Your task to perform on an android device: Open the stopwatch Image 0: 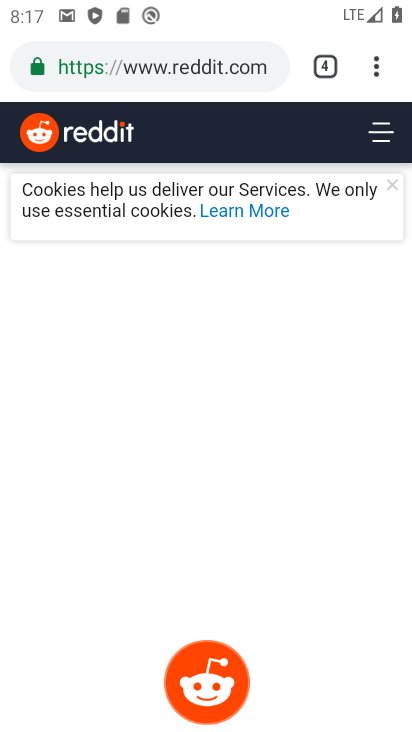
Step 0: press home button
Your task to perform on an android device: Open the stopwatch Image 1: 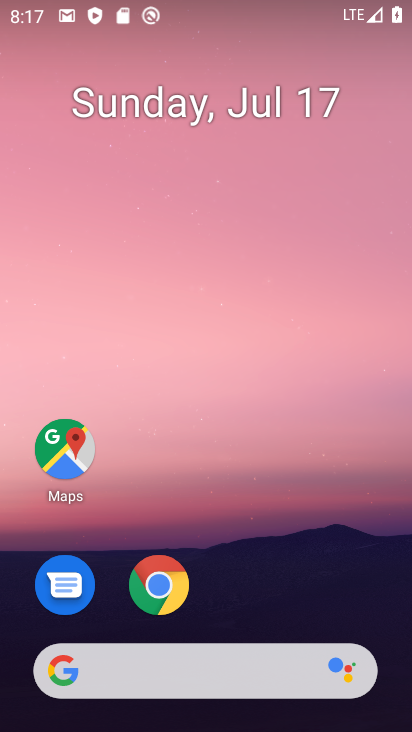
Step 1: drag from (218, 656) to (335, 99)
Your task to perform on an android device: Open the stopwatch Image 2: 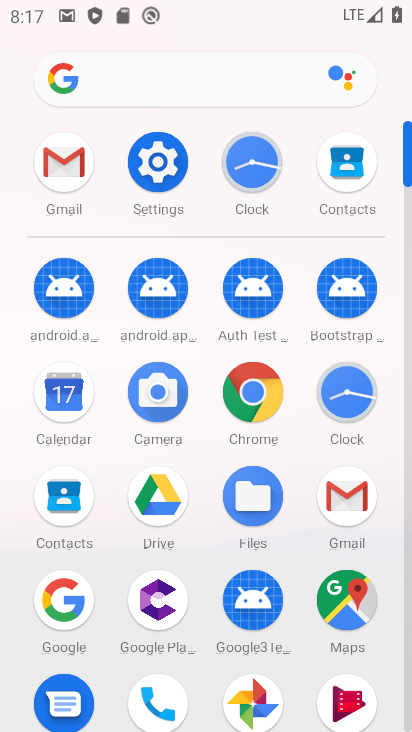
Step 2: click (344, 398)
Your task to perform on an android device: Open the stopwatch Image 3: 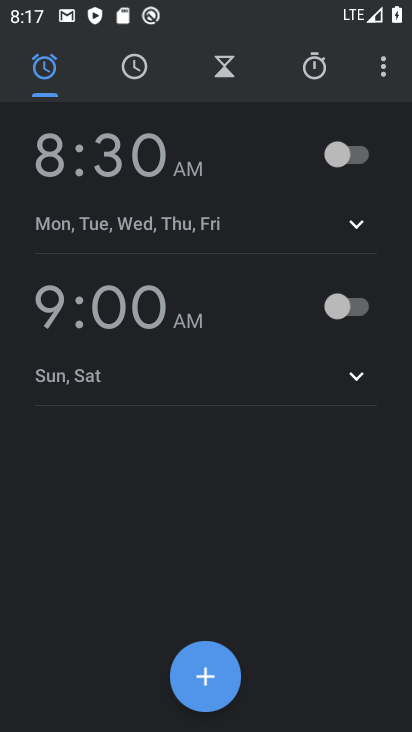
Step 3: click (320, 64)
Your task to perform on an android device: Open the stopwatch Image 4: 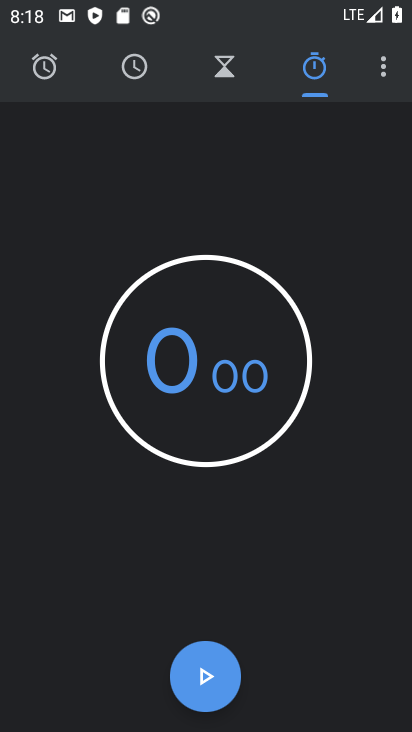
Step 4: task complete